Your task to perform on an android device: Open settings on Google Maps Image 0: 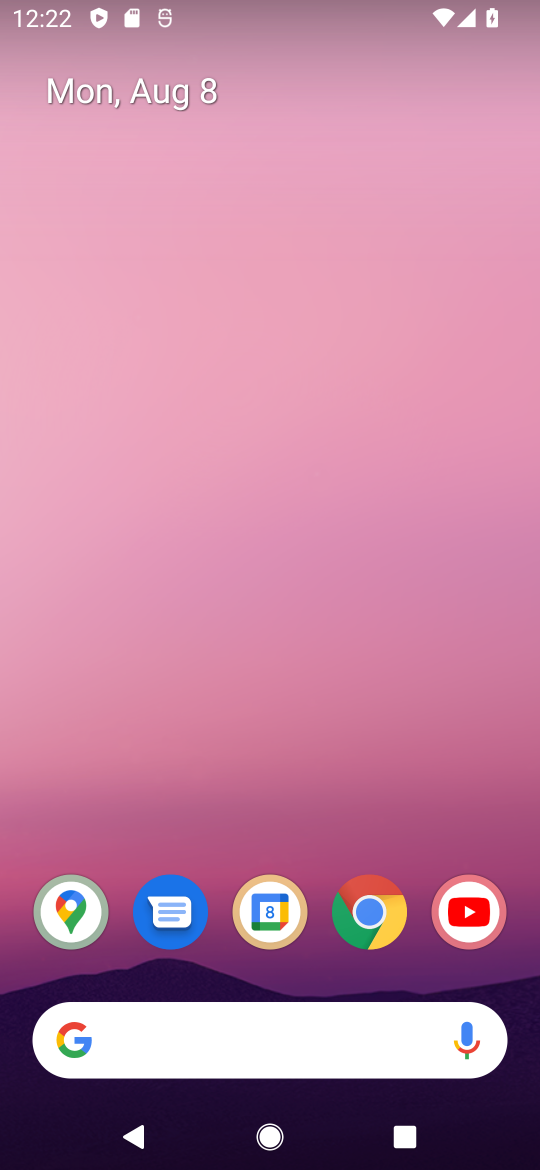
Step 0: click (46, 893)
Your task to perform on an android device: Open settings on Google Maps Image 1: 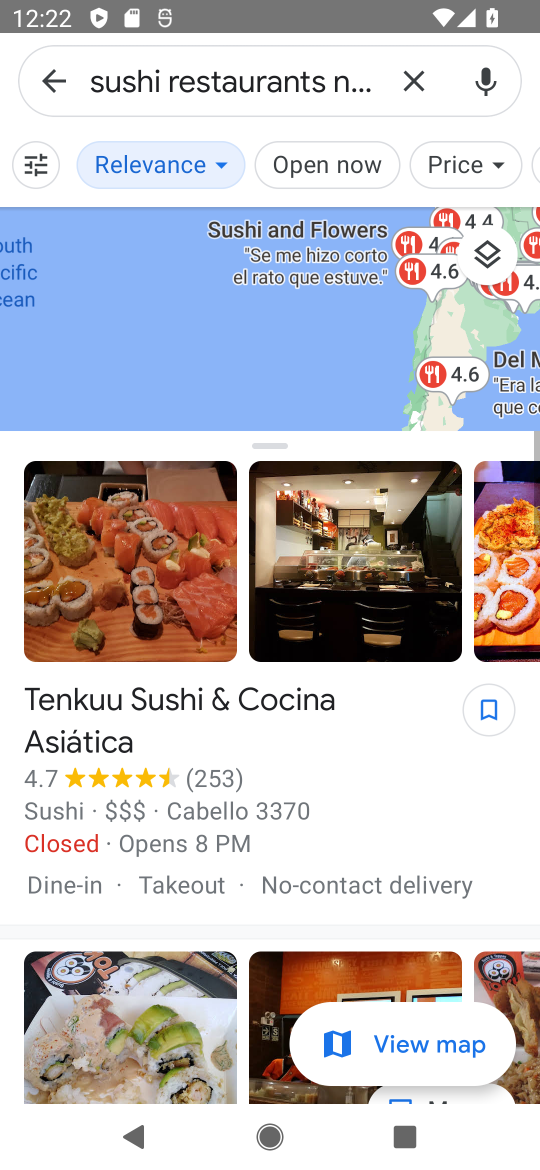
Step 1: click (404, 70)
Your task to perform on an android device: Open settings on Google Maps Image 2: 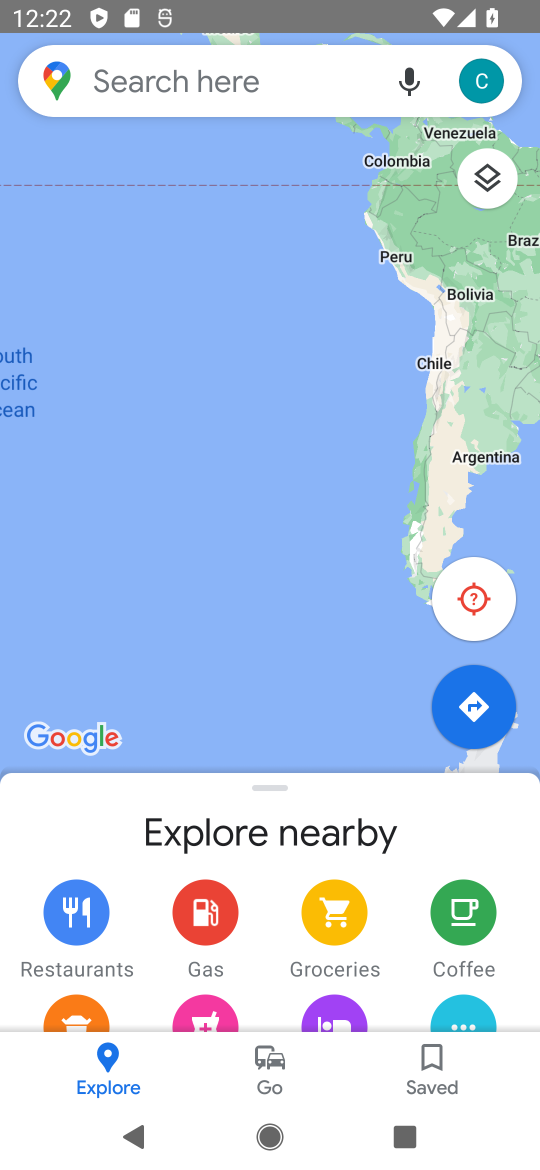
Step 2: click (219, 107)
Your task to perform on an android device: Open settings on Google Maps Image 3: 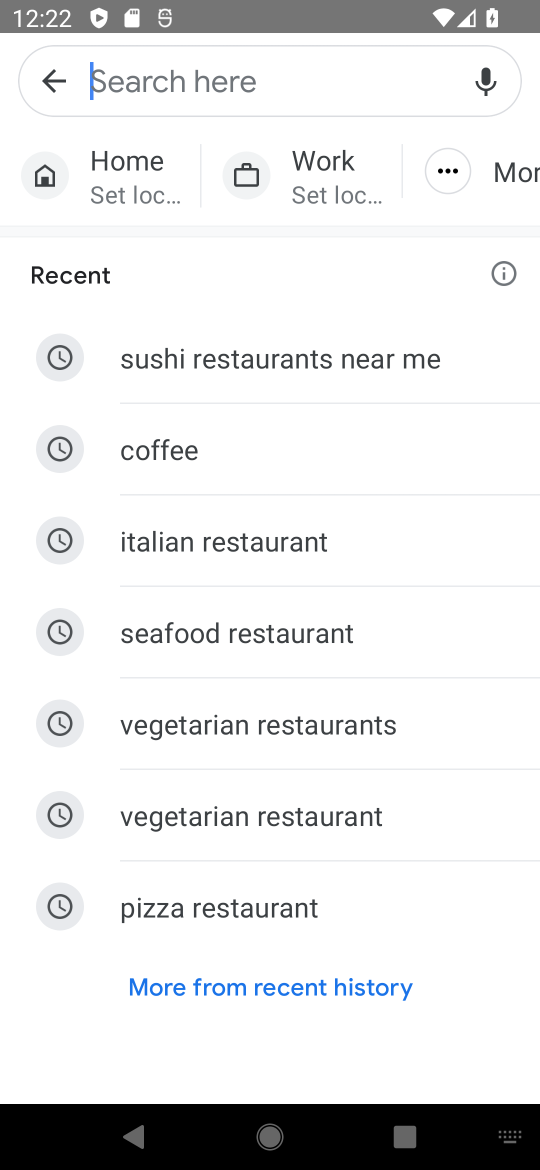
Step 3: type "ozo restaurants"
Your task to perform on an android device: Open settings on Google Maps Image 4: 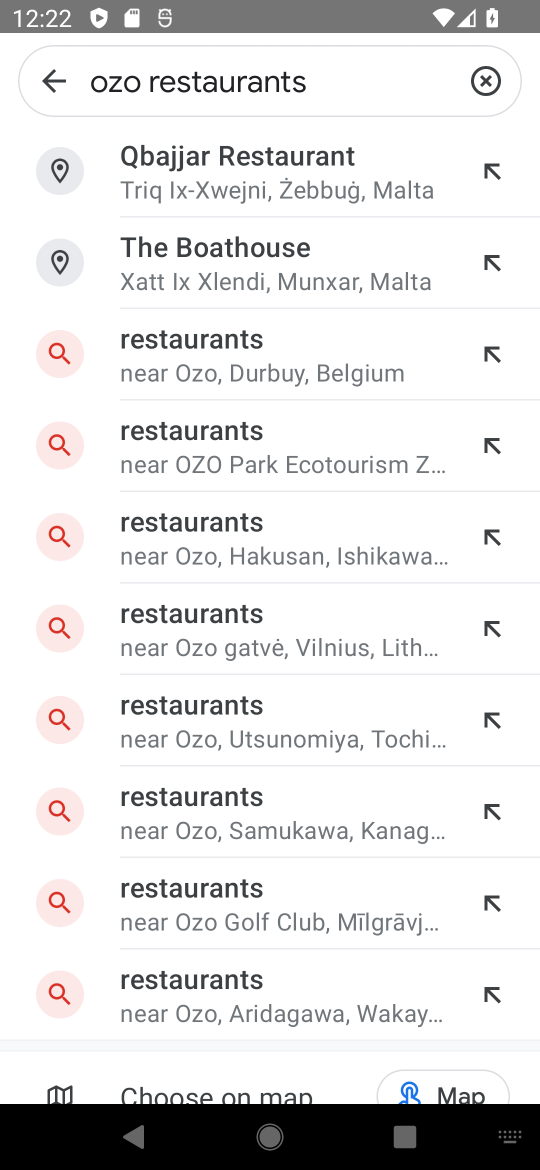
Step 4: drag from (223, 982) to (271, 1032)
Your task to perform on an android device: Open settings on Google Maps Image 5: 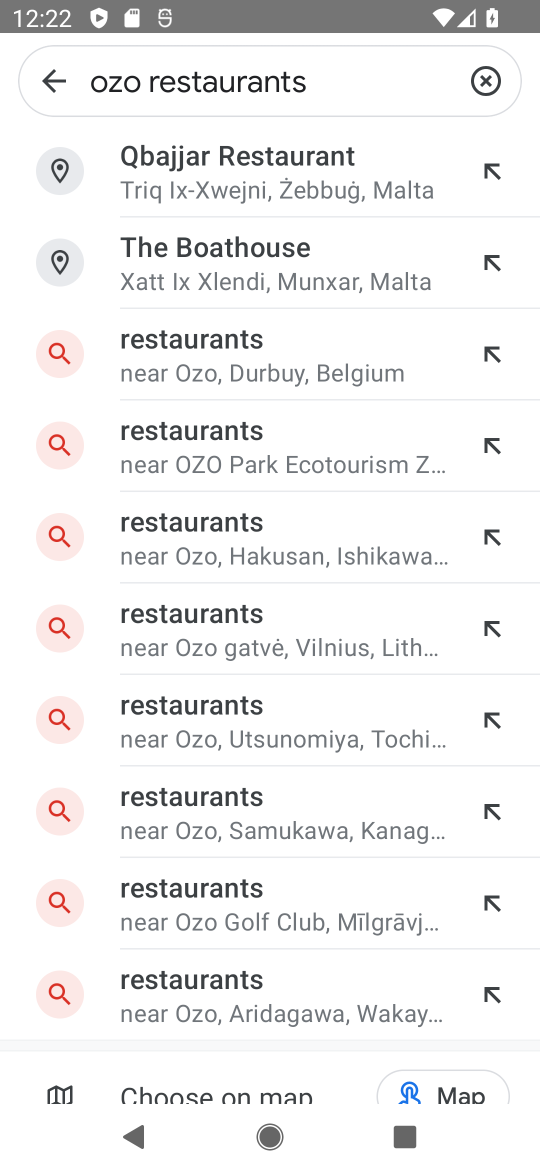
Step 5: click (48, 84)
Your task to perform on an android device: Open settings on Google Maps Image 6: 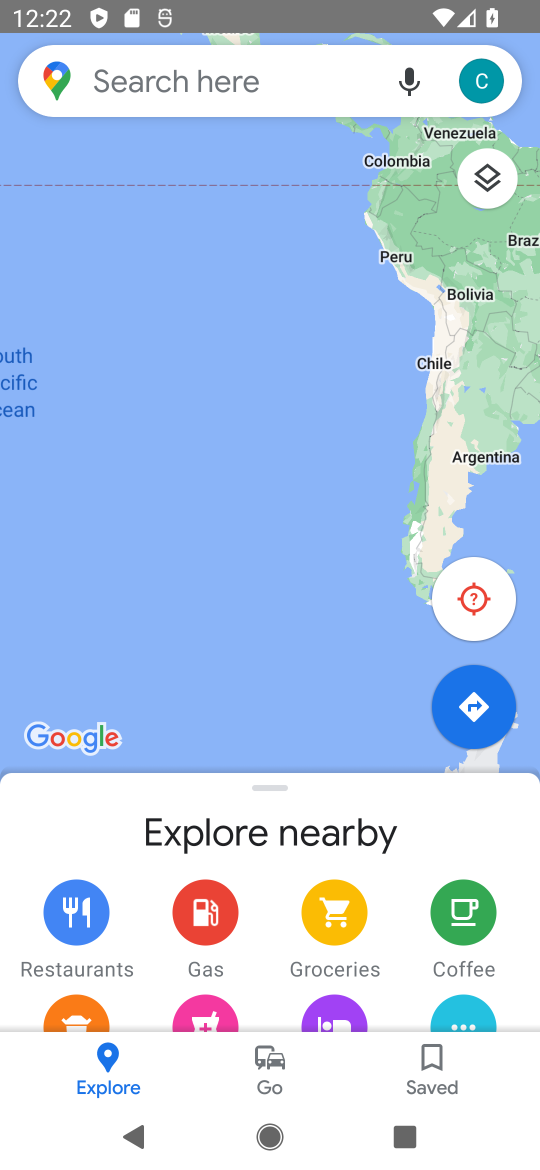
Step 6: click (501, 52)
Your task to perform on an android device: Open settings on Google Maps Image 7: 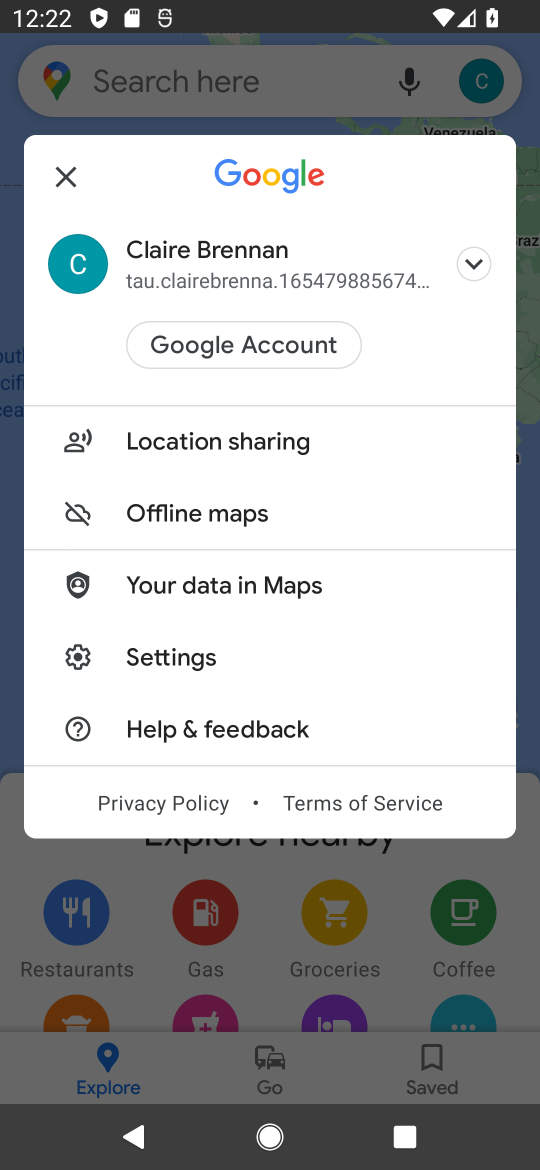
Step 7: click (176, 662)
Your task to perform on an android device: Open settings on Google Maps Image 8: 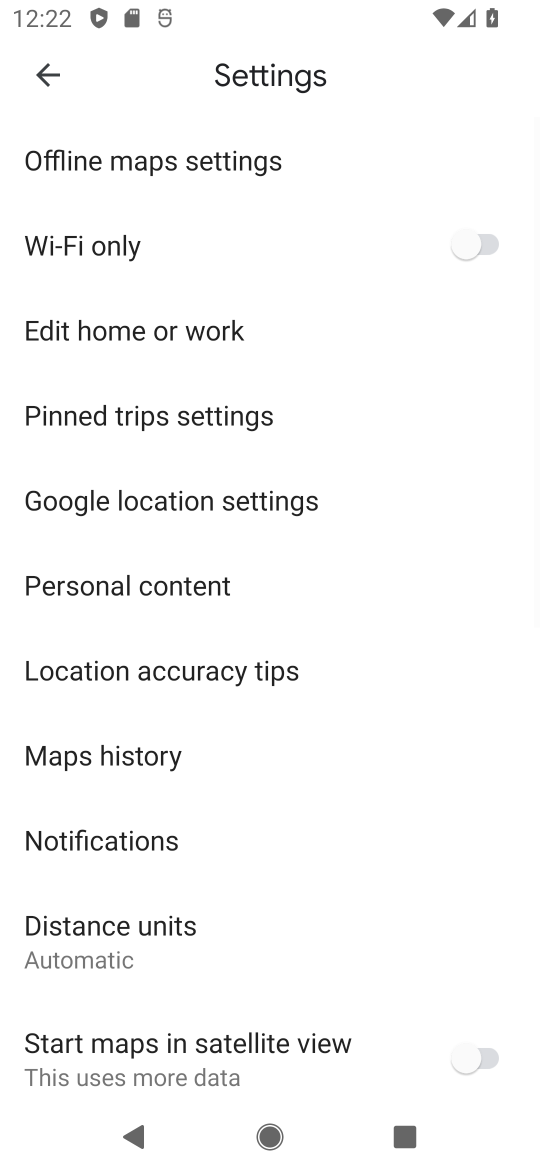
Step 8: task complete